Your task to perform on an android device: Open settings on Google Maps Image 0: 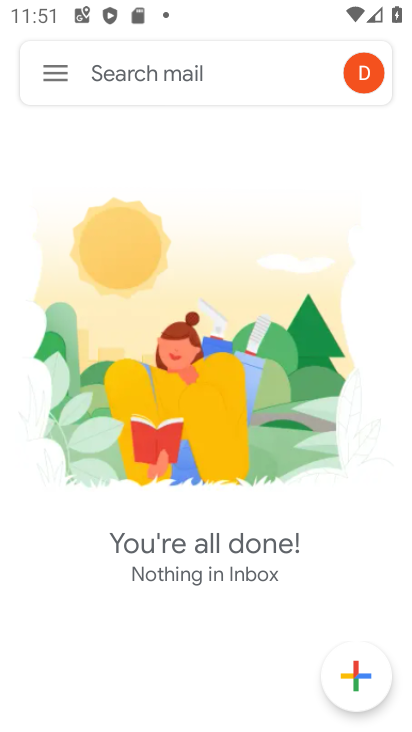
Step 0: press home button
Your task to perform on an android device: Open settings on Google Maps Image 1: 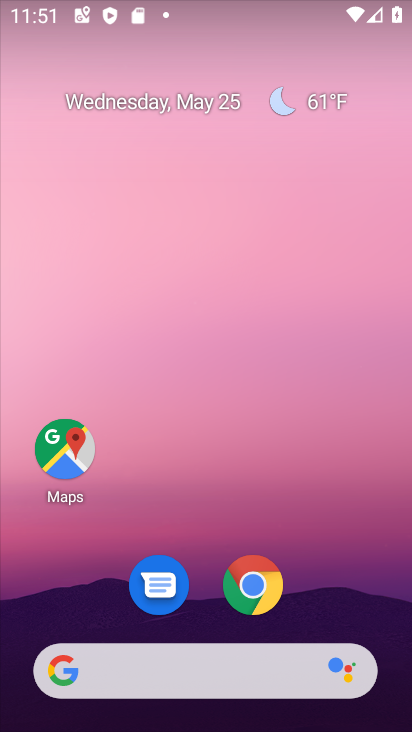
Step 1: click (63, 448)
Your task to perform on an android device: Open settings on Google Maps Image 2: 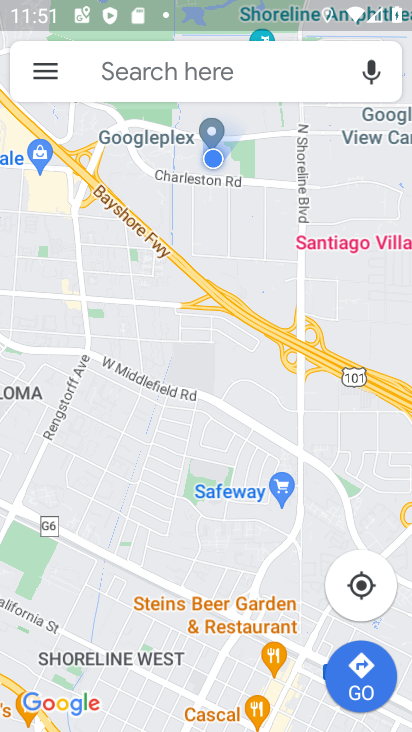
Step 2: click (47, 70)
Your task to perform on an android device: Open settings on Google Maps Image 3: 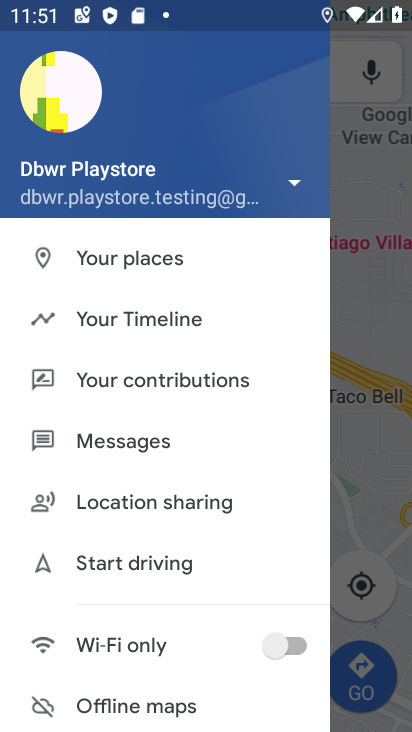
Step 3: drag from (150, 600) to (237, 19)
Your task to perform on an android device: Open settings on Google Maps Image 4: 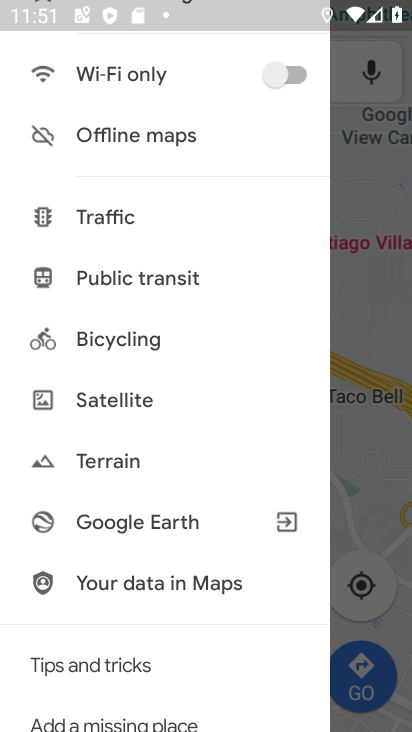
Step 4: drag from (185, 629) to (218, 201)
Your task to perform on an android device: Open settings on Google Maps Image 5: 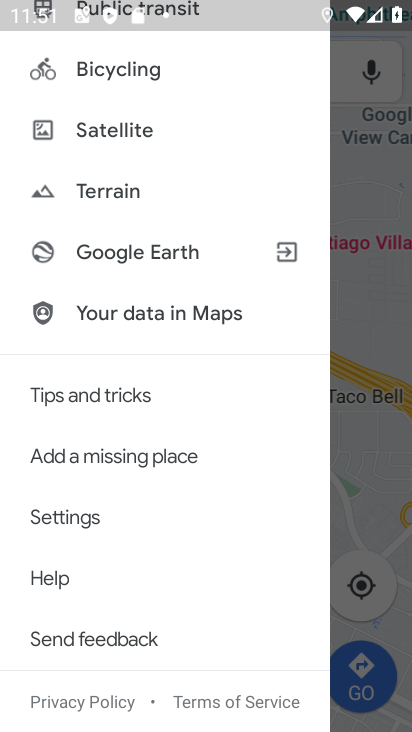
Step 5: click (66, 504)
Your task to perform on an android device: Open settings on Google Maps Image 6: 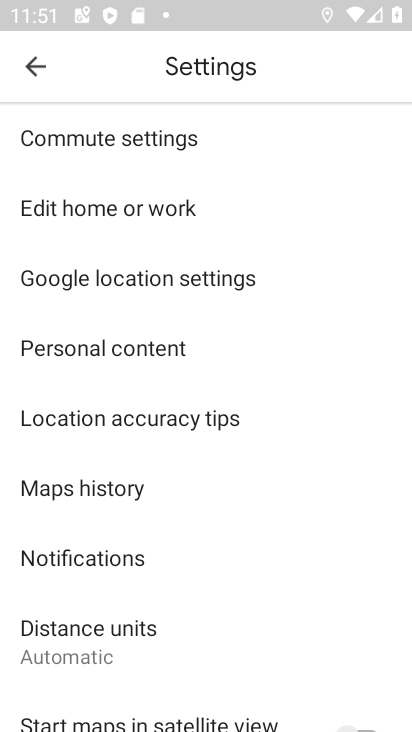
Step 6: task complete